Your task to perform on an android device: search for starred emails in the gmail app Image 0: 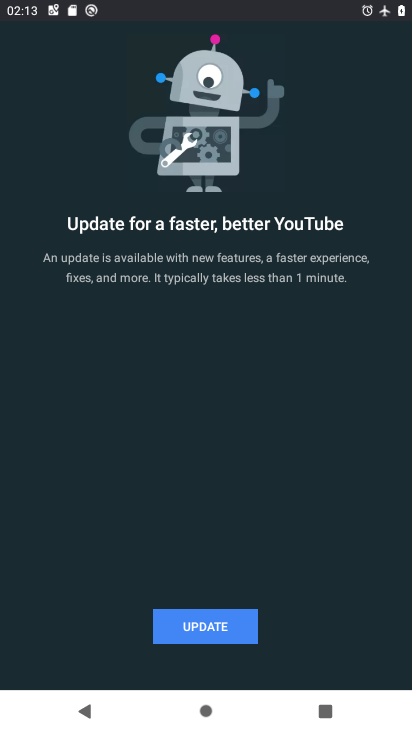
Step 0: press home button
Your task to perform on an android device: search for starred emails in the gmail app Image 1: 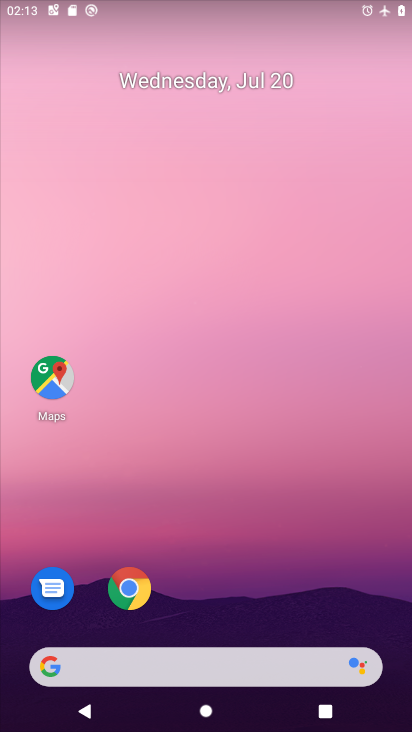
Step 1: drag from (201, 618) to (200, 0)
Your task to perform on an android device: search for starred emails in the gmail app Image 2: 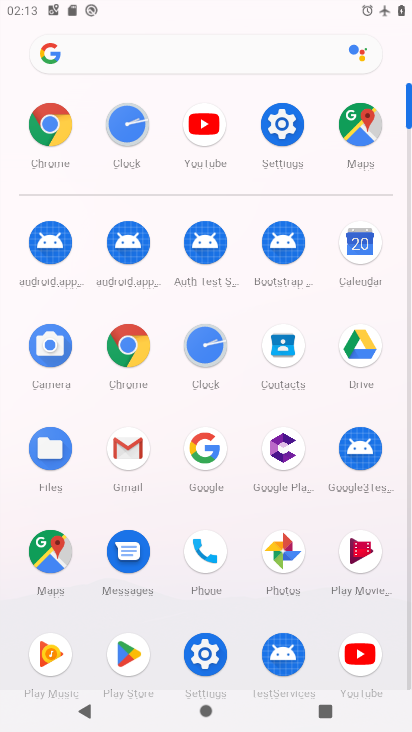
Step 2: click (127, 438)
Your task to perform on an android device: search for starred emails in the gmail app Image 3: 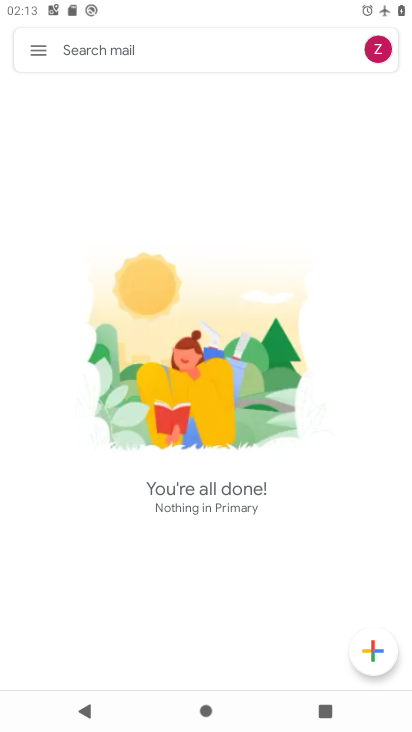
Step 3: click (40, 40)
Your task to perform on an android device: search for starred emails in the gmail app Image 4: 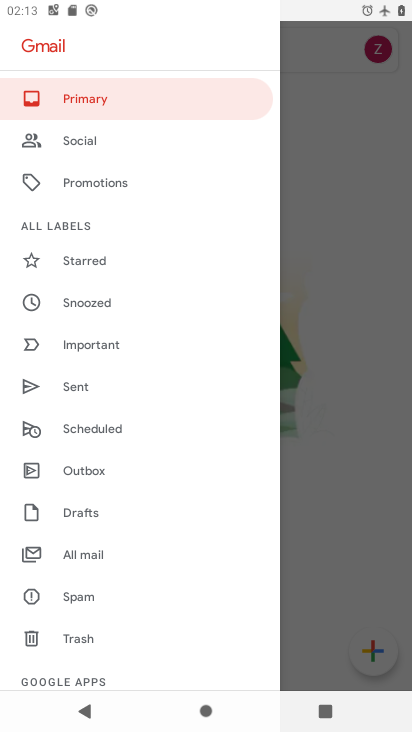
Step 4: click (86, 260)
Your task to perform on an android device: search for starred emails in the gmail app Image 5: 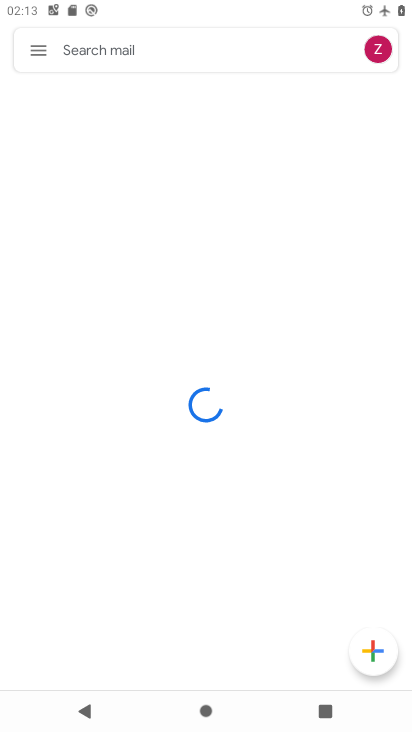
Step 5: task complete